Your task to perform on an android device: Go to calendar. Show me events next week Image 0: 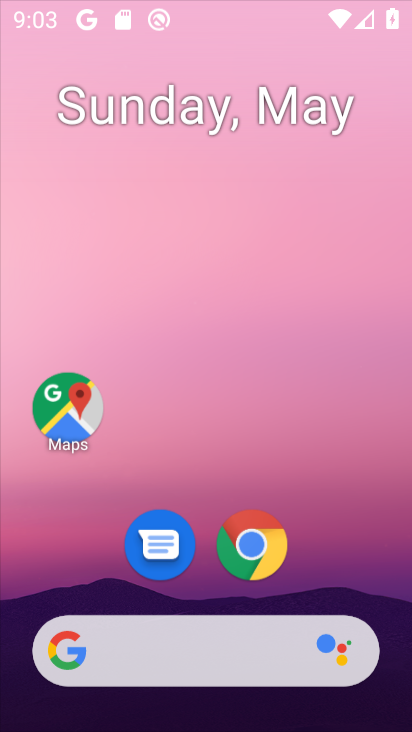
Step 0: drag from (209, 408) to (212, 164)
Your task to perform on an android device: Go to calendar. Show me events next week Image 1: 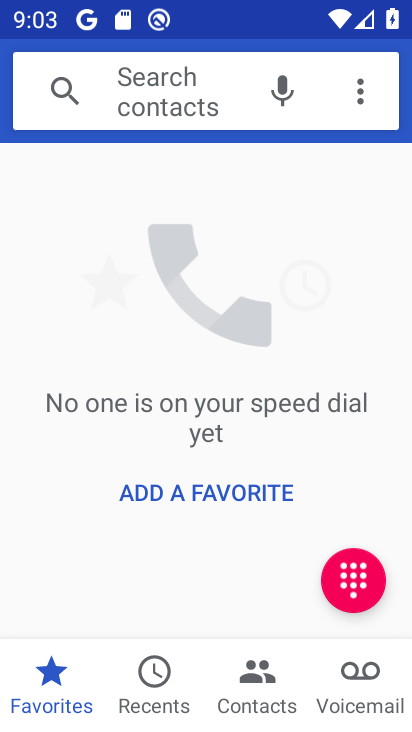
Step 1: press home button
Your task to perform on an android device: Go to calendar. Show me events next week Image 2: 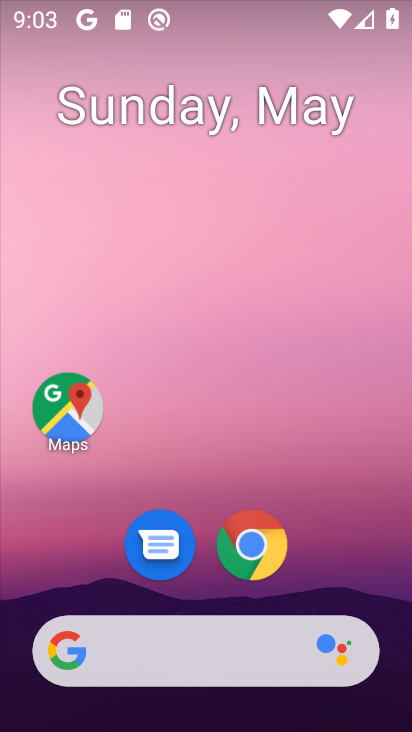
Step 2: drag from (172, 622) to (217, 256)
Your task to perform on an android device: Go to calendar. Show me events next week Image 3: 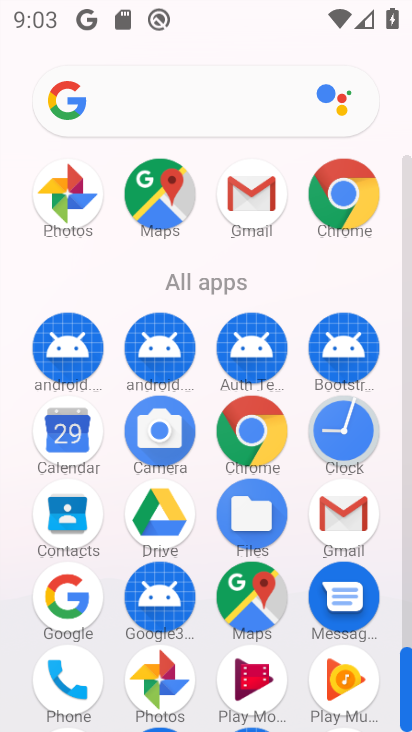
Step 3: click (77, 447)
Your task to perform on an android device: Go to calendar. Show me events next week Image 4: 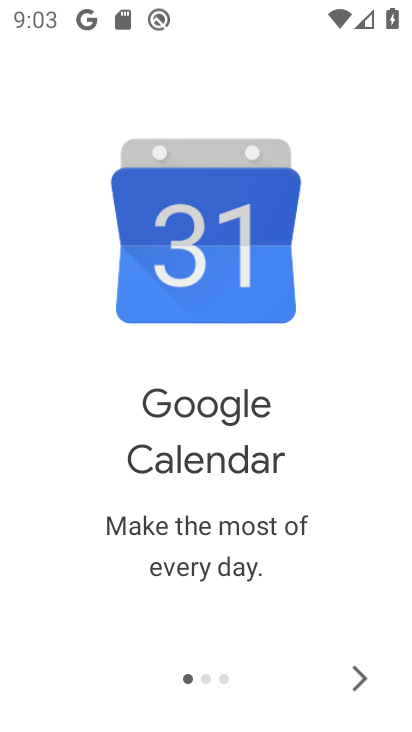
Step 4: click (334, 676)
Your task to perform on an android device: Go to calendar. Show me events next week Image 5: 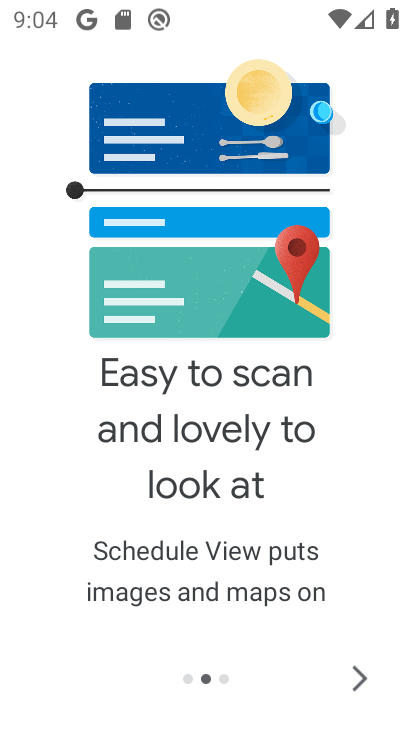
Step 5: click (334, 676)
Your task to perform on an android device: Go to calendar. Show me events next week Image 6: 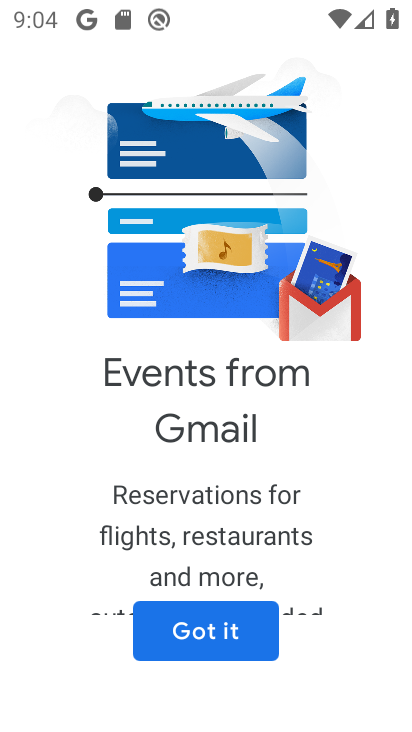
Step 6: click (234, 635)
Your task to perform on an android device: Go to calendar. Show me events next week Image 7: 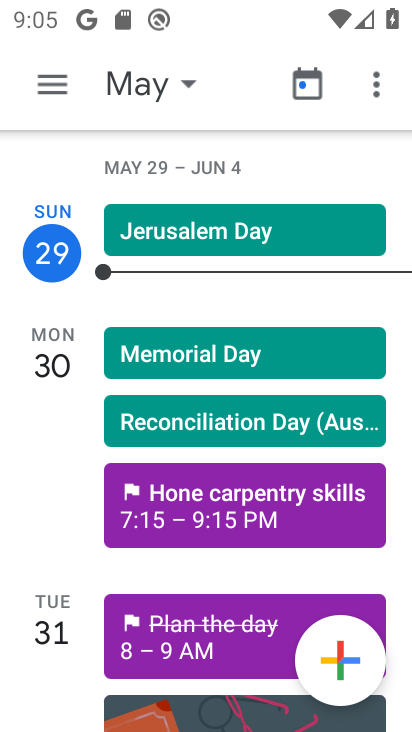
Step 7: click (161, 94)
Your task to perform on an android device: Go to calendar. Show me events next week Image 8: 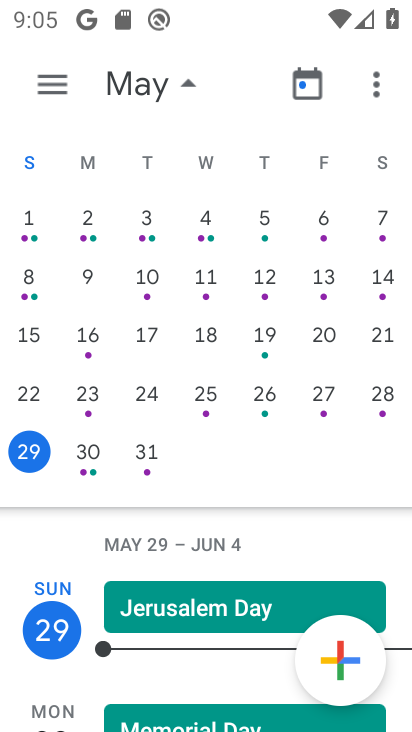
Step 8: drag from (374, 371) to (3, 299)
Your task to perform on an android device: Go to calendar. Show me events next week Image 9: 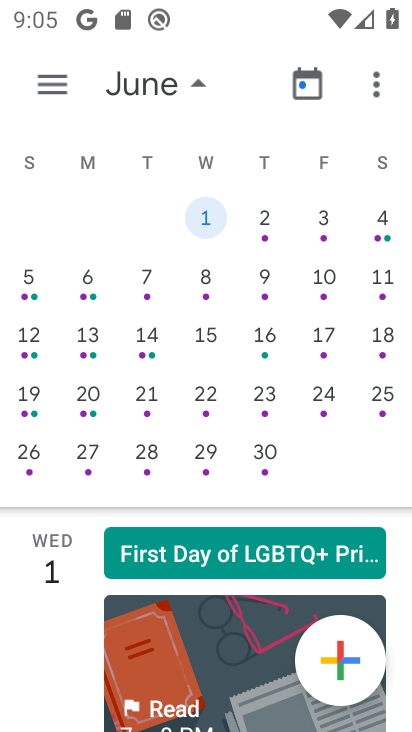
Step 9: click (15, 277)
Your task to perform on an android device: Go to calendar. Show me events next week Image 10: 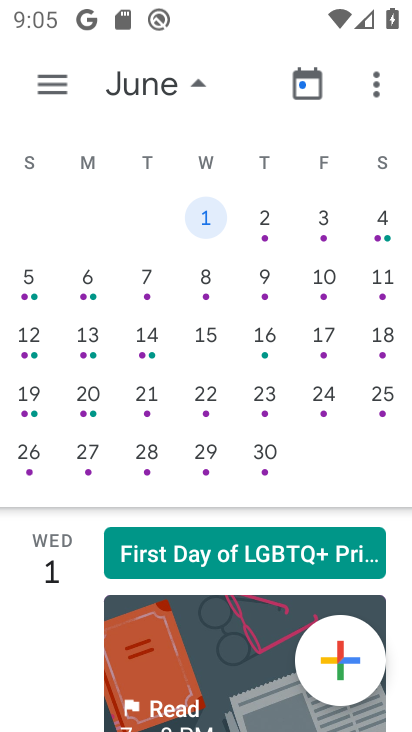
Step 10: click (91, 285)
Your task to perform on an android device: Go to calendar. Show me events next week Image 11: 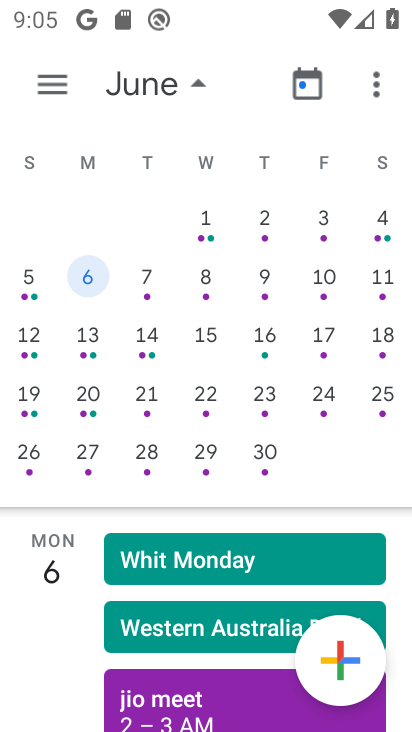
Step 11: task complete